Your task to perform on an android device: find snoozed emails in the gmail app Image 0: 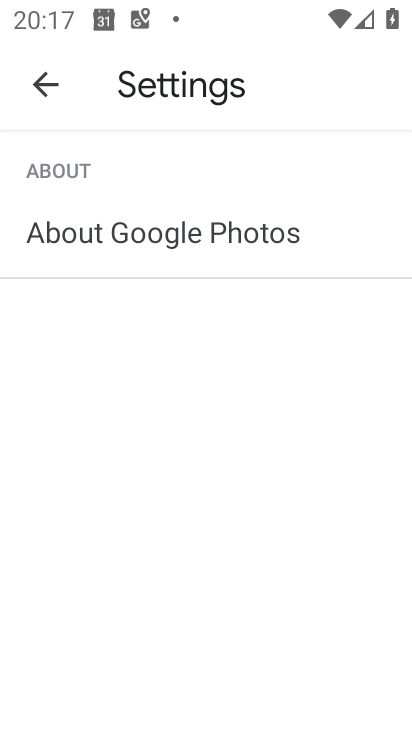
Step 0: press home button
Your task to perform on an android device: find snoozed emails in the gmail app Image 1: 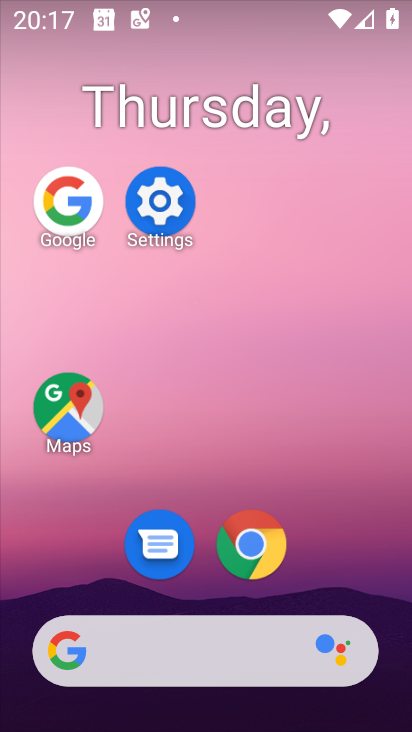
Step 1: drag from (228, 706) to (301, 123)
Your task to perform on an android device: find snoozed emails in the gmail app Image 2: 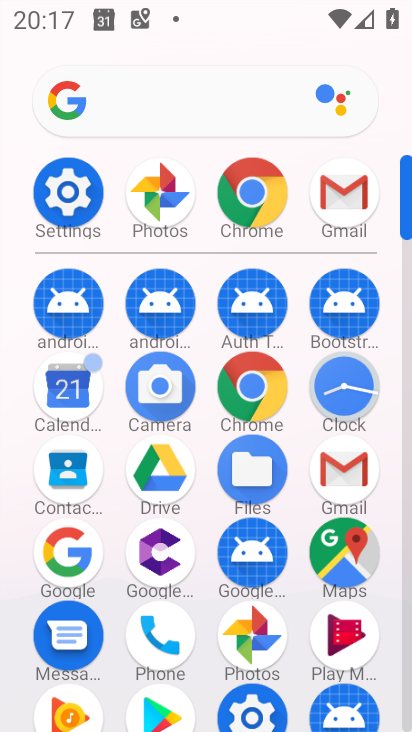
Step 2: click (350, 193)
Your task to perform on an android device: find snoozed emails in the gmail app Image 3: 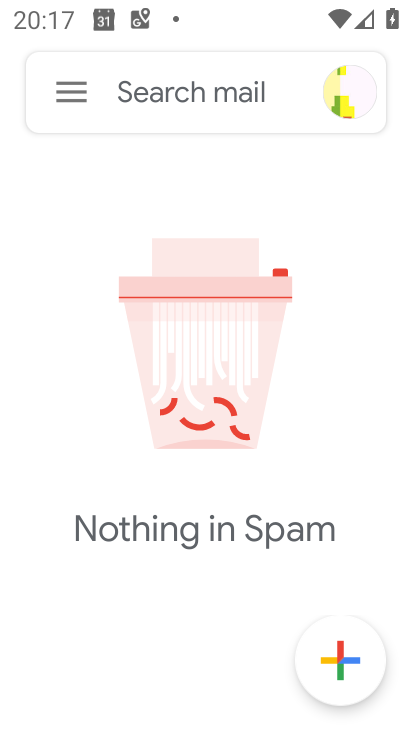
Step 3: click (60, 85)
Your task to perform on an android device: find snoozed emails in the gmail app Image 4: 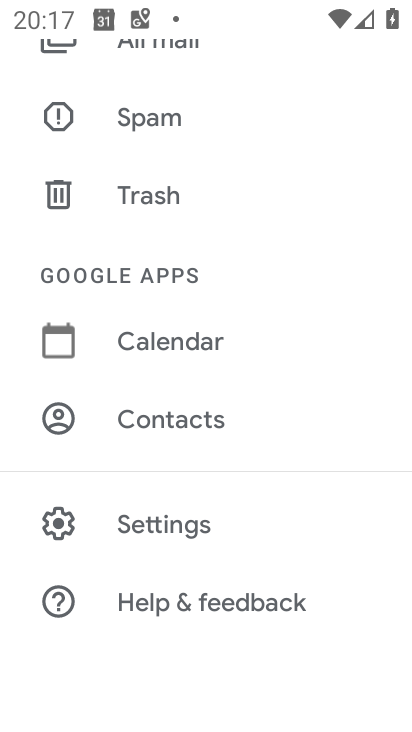
Step 4: click (143, 524)
Your task to perform on an android device: find snoozed emails in the gmail app Image 5: 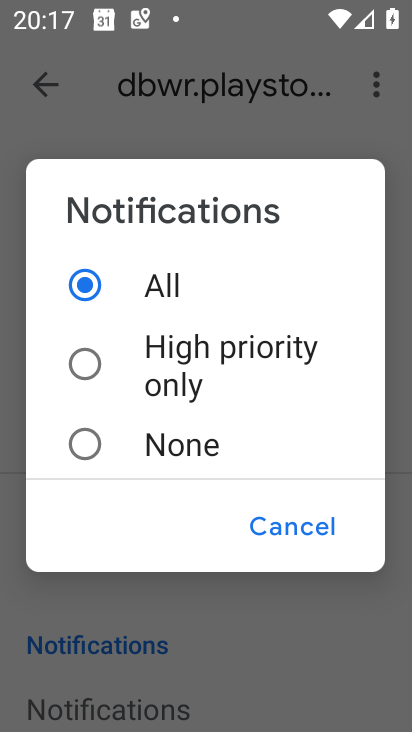
Step 5: click (311, 531)
Your task to perform on an android device: find snoozed emails in the gmail app Image 6: 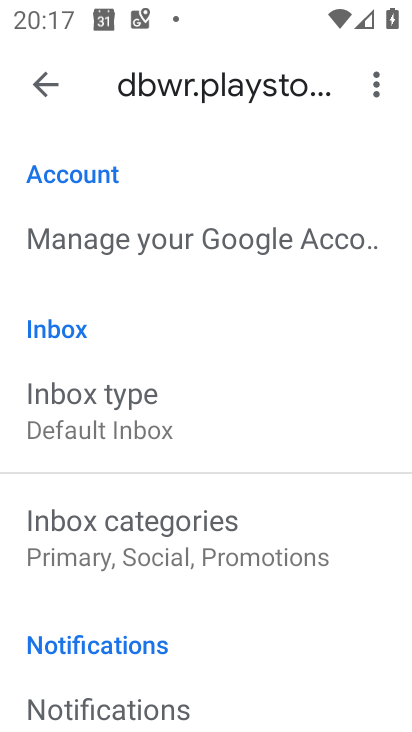
Step 6: drag from (222, 331) to (223, 415)
Your task to perform on an android device: find snoozed emails in the gmail app Image 7: 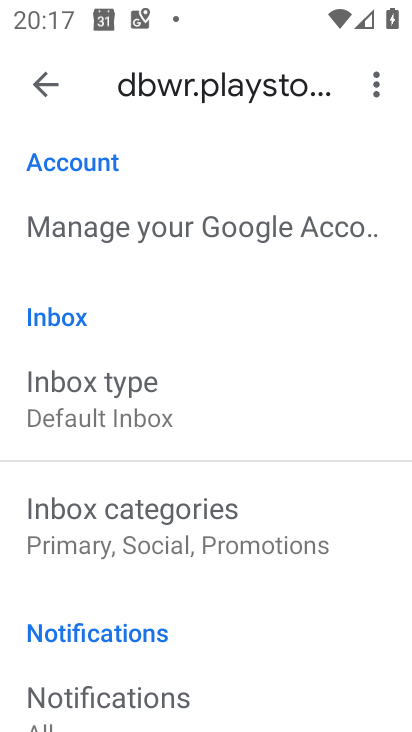
Step 7: click (70, 88)
Your task to perform on an android device: find snoozed emails in the gmail app Image 8: 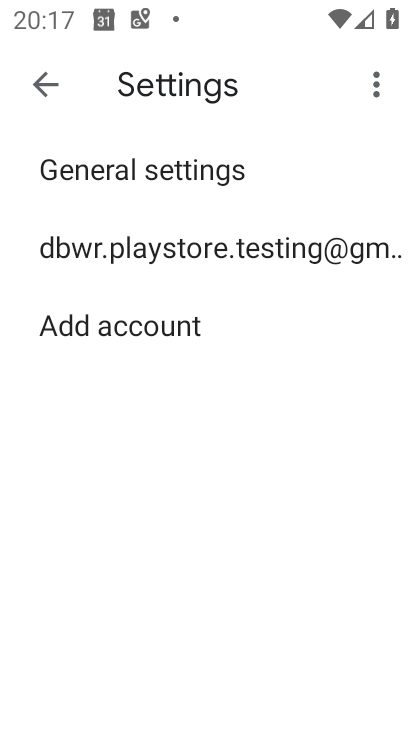
Step 8: click (70, 88)
Your task to perform on an android device: find snoozed emails in the gmail app Image 9: 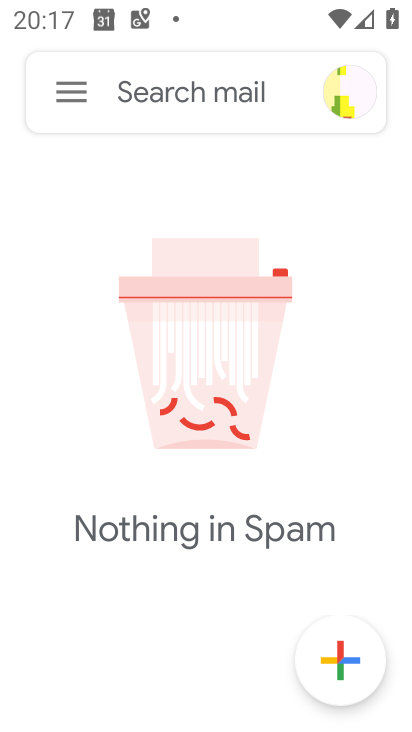
Step 9: click (67, 93)
Your task to perform on an android device: find snoozed emails in the gmail app Image 10: 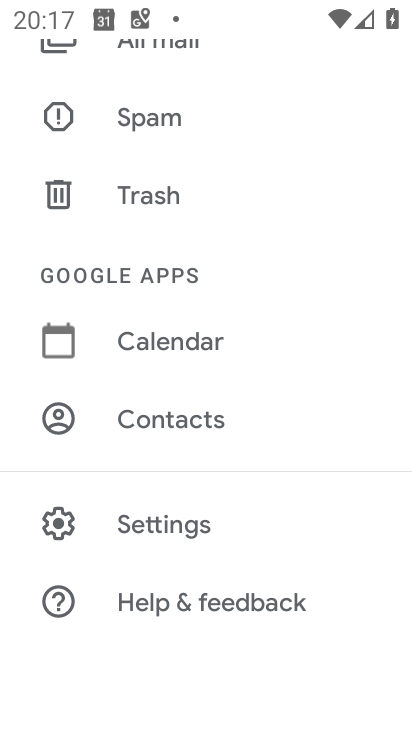
Step 10: drag from (153, 137) to (198, 612)
Your task to perform on an android device: find snoozed emails in the gmail app Image 11: 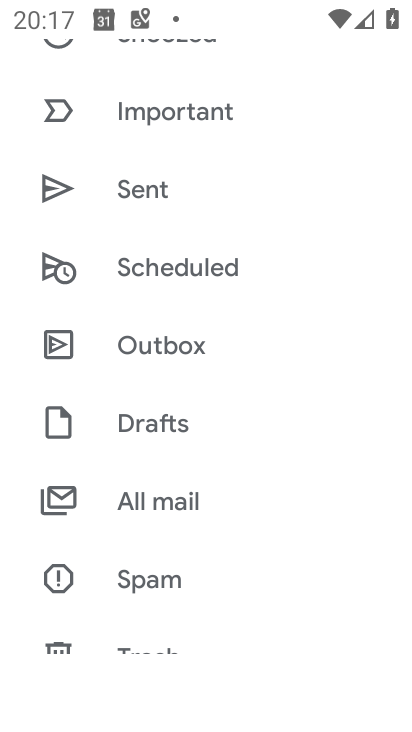
Step 11: drag from (165, 119) to (170, 247)
Your task to perform on an android device: find snoozed emails in the gmail app Image 12: 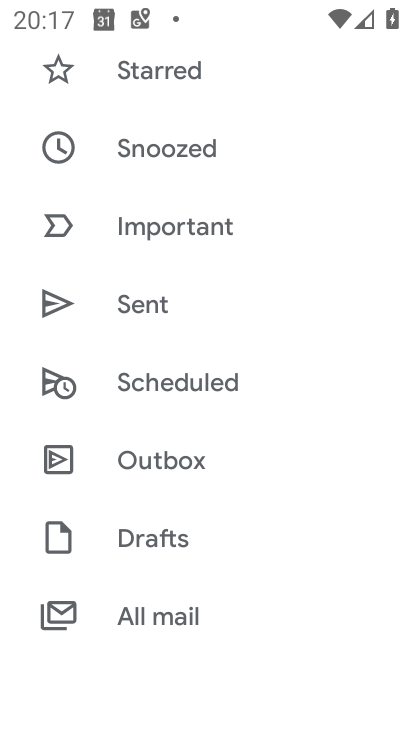
Step 12: click (154, 151)
Your task to perform on an android device: find snoozed emails in the gmail app Image 13: 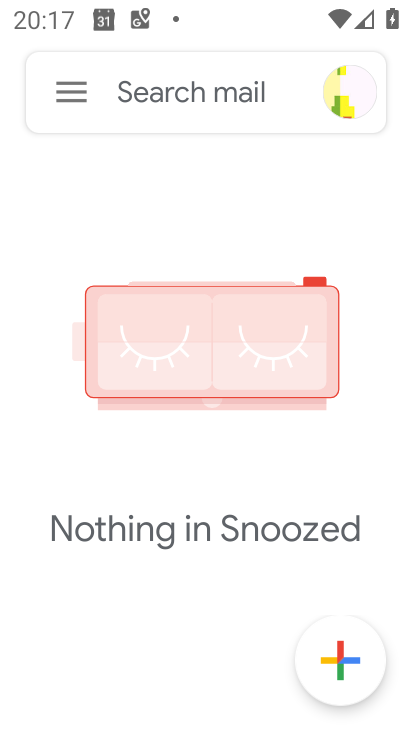
Step 13: task complete